Your task to perform on an android device: Turn off notifications for the Google Maps app Image 0: 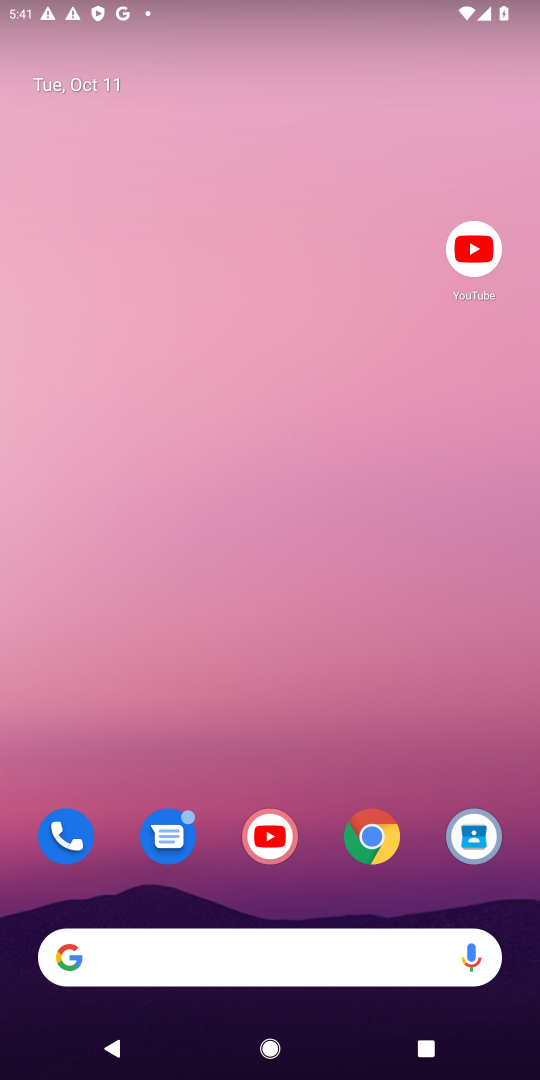
Step 0: drag from (287, 947) to (479, 82)
Your task to perform on an android device: Turn off notifications for the Google Maps app Image 1: 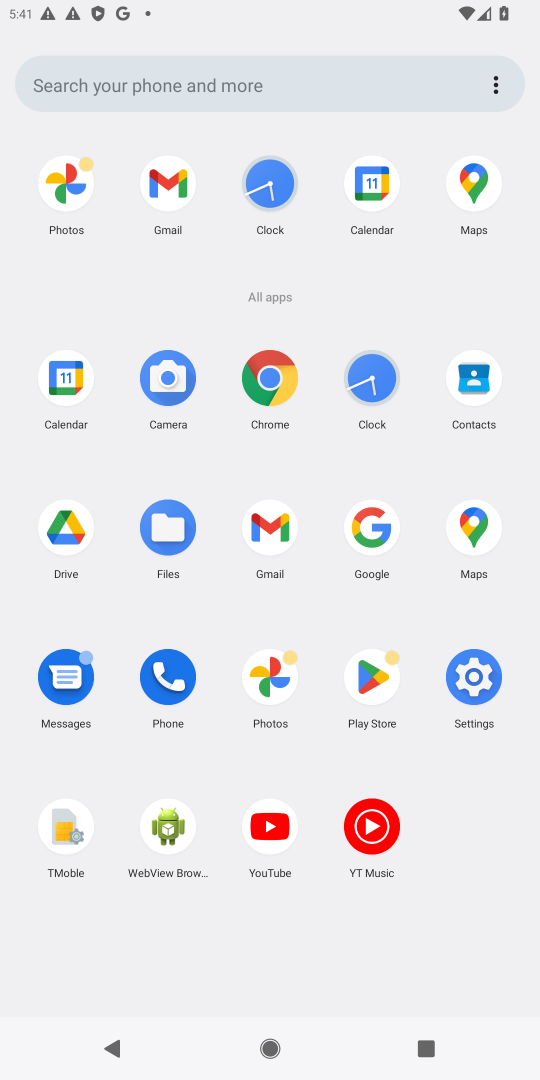
Step 1: click (485, 706)
Your task to perform on an android device: Turn off notifications for the Google Maps app Image 2: 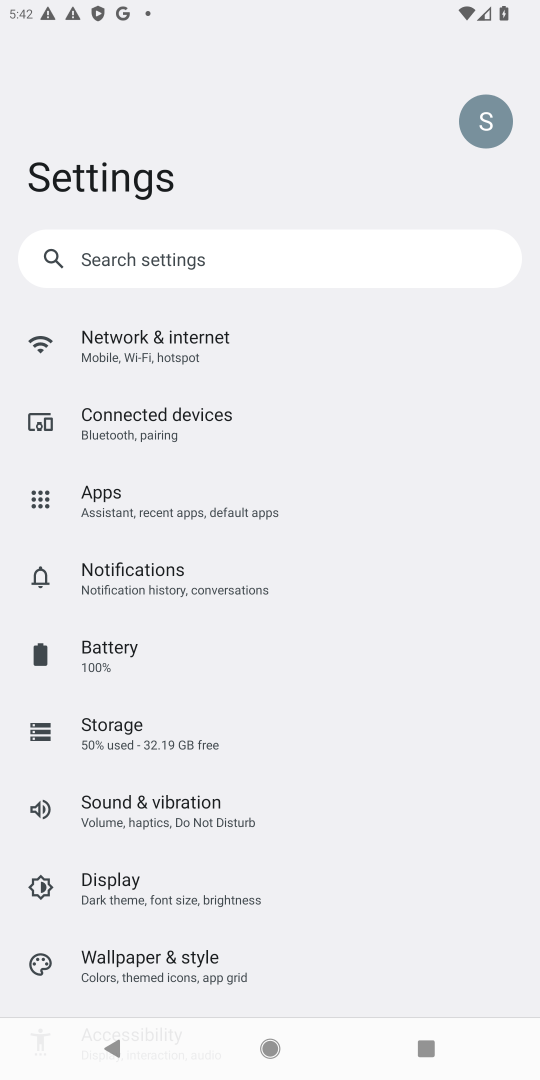
Step 2: drag from (217, 823) to (283, 587)
Your task to perform on an android device: Turn off notifications for the Google Maps app Image 3: 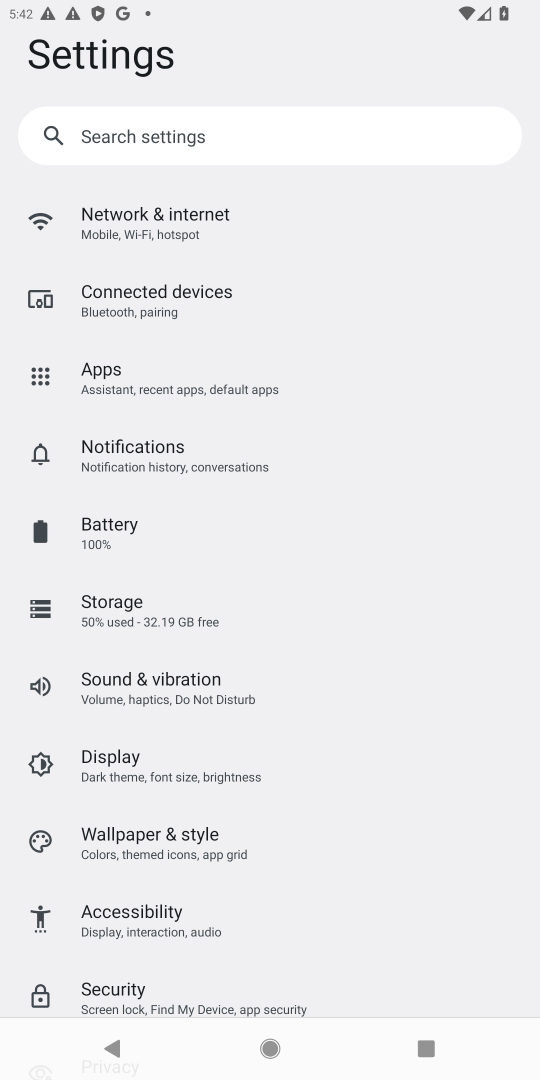
Step 3: click (146, 435)
Your task to perform on an android device: Turn off notifications for the Google Maps app Image 4: 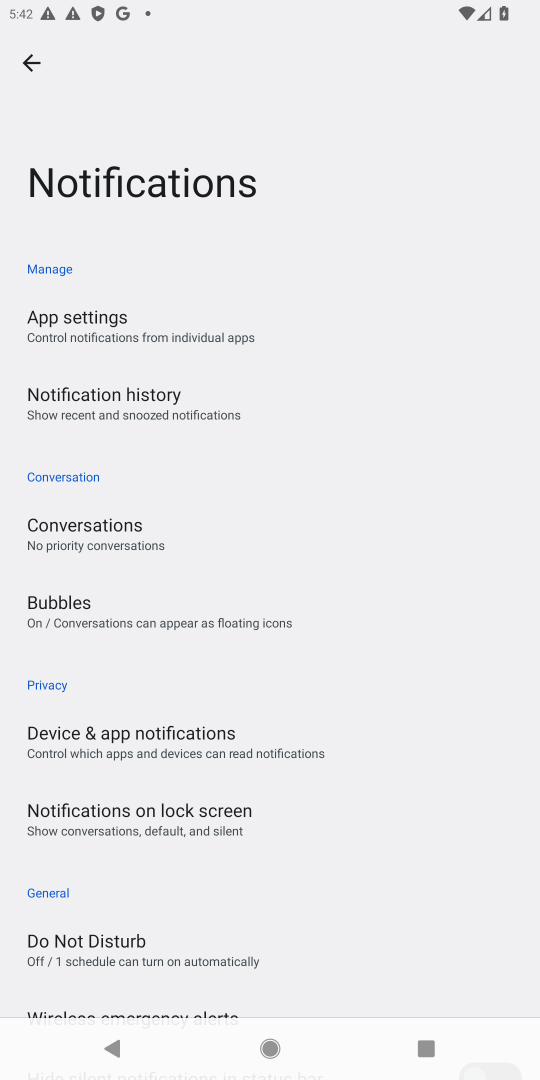
Step 4: click (136, 324)
Your task to perform on an android device: Turn off notifications for the Google Maps app Image 5: 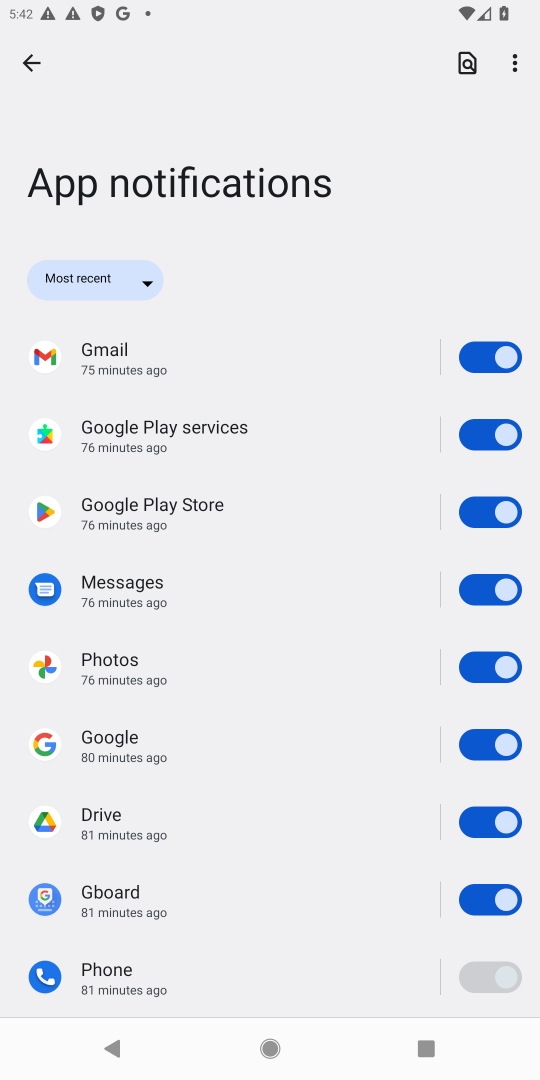
Step 5: task complete